Your task to perform on an android device: Search for Mexican restaurants on Maps Image 0: 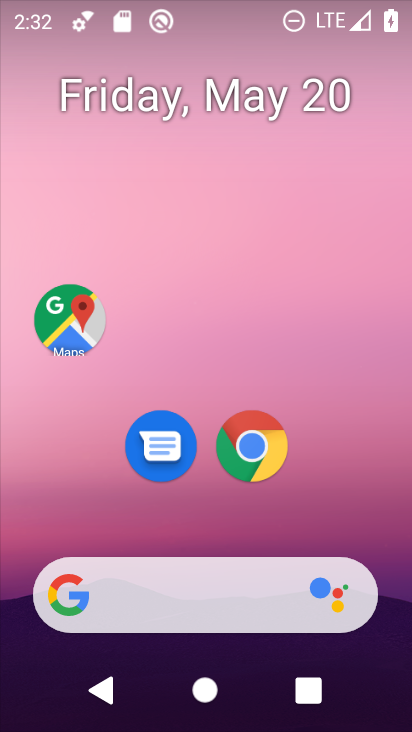
Step 0: click (65, 323)
Your task to perform on an android device: Search for Mexican restaurants on Maps Image 1: 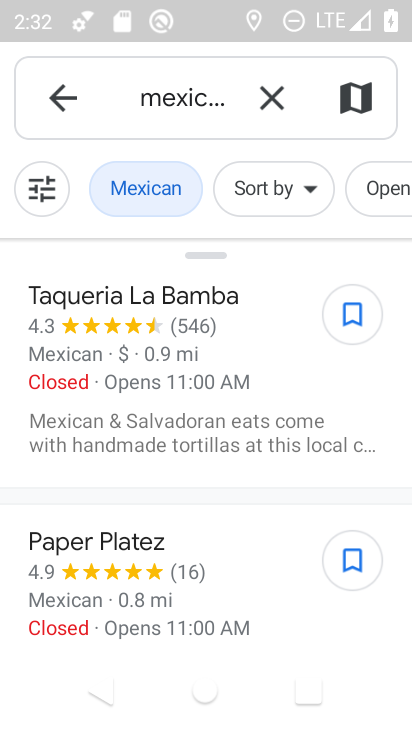
Step 1: task complete